Your task to perform on an android device: clear all cookies in the chrome app Image 0: 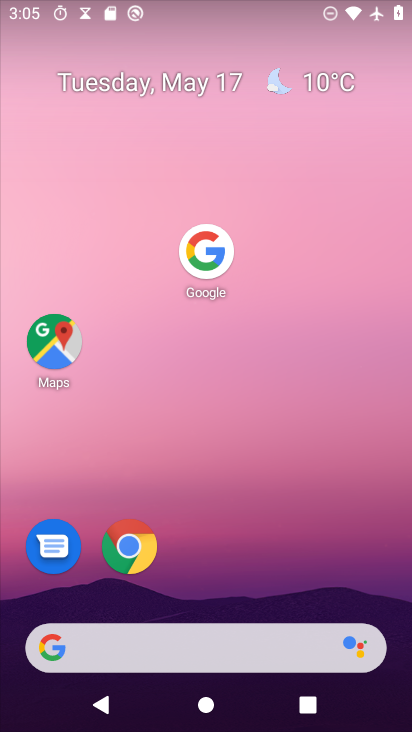
Step 0: click (128, 559)
Your task to perform on an android device: clear all cookies in the chrome app Image 1: 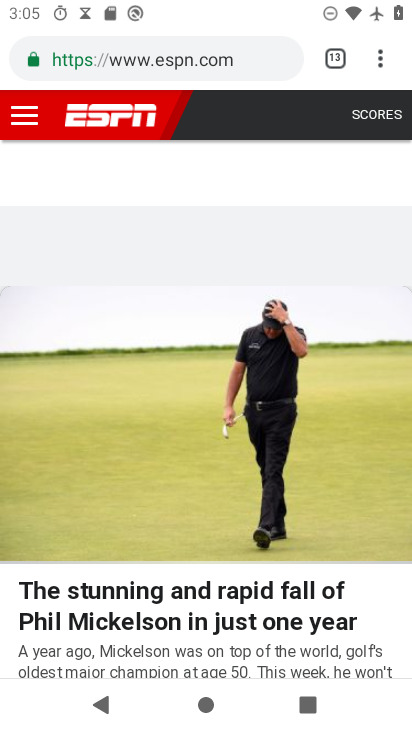
Step 1: drag from (384, 69) to (281, 578)
Your task to perform on an android device: clear all cookies in the chrome app Image 2: 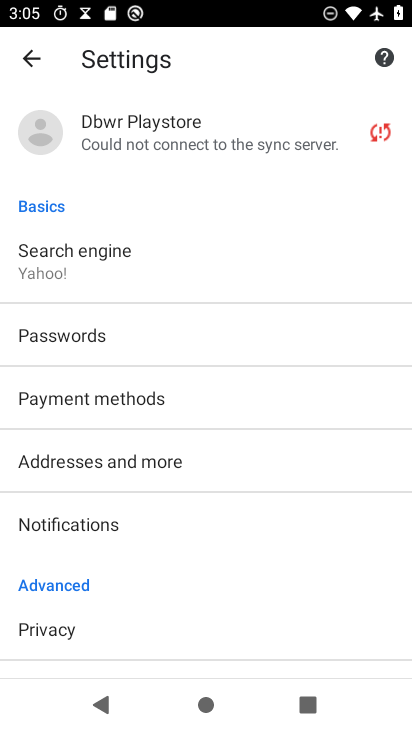
Step 2: drag from (191, 638) to (373, 198)
Your task to perform on an android device: clear all cookies in the chrome app Image 3: 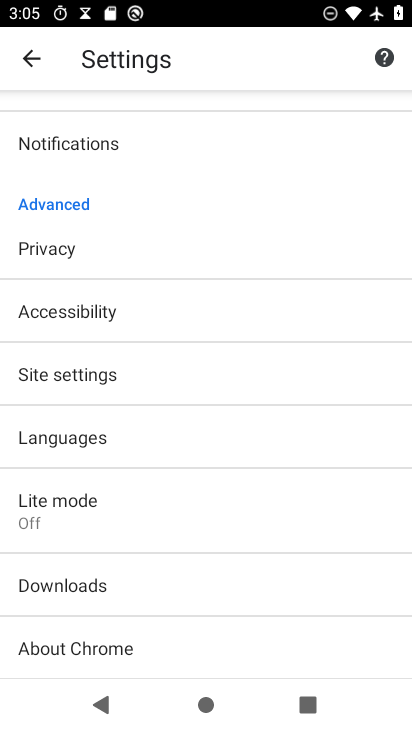
Step 3: click (66, 247)
Your task to perform on an android device: clear all cookies in the chrome app Image 4: 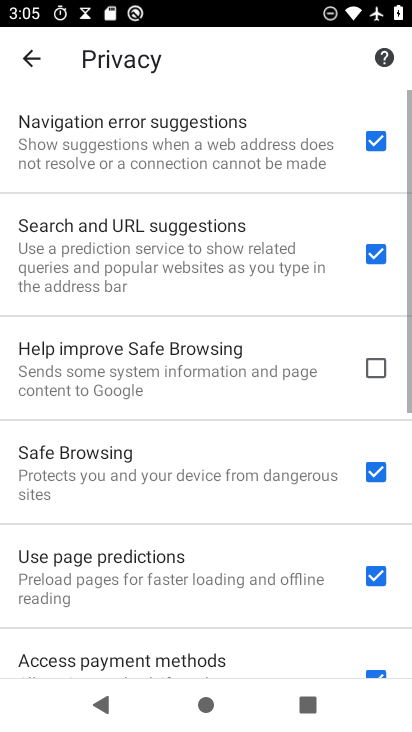
Step 4: drag from (178, 566) to (325, 107)
Your task to perform on an android device: clear all cookies in the chrome app Image 5: 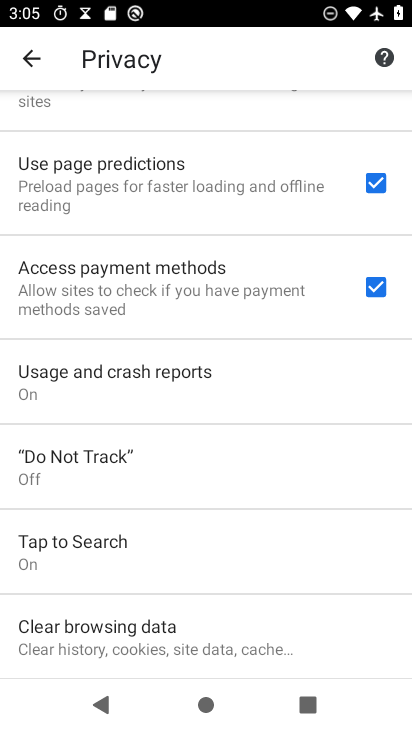
Step 5: click (157, 632)
Your task to perform on an android device: clear all cookies in the chrome app Image 6: 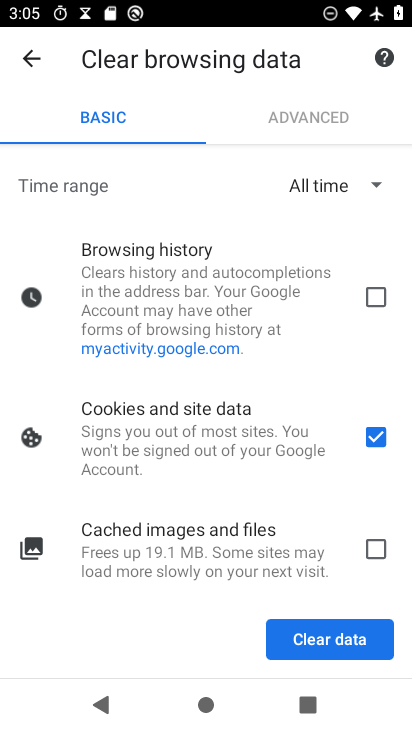
Step 6: click (323, 650)
Your task to perform on an android device: clear all cookies in the chrome app Image 7: 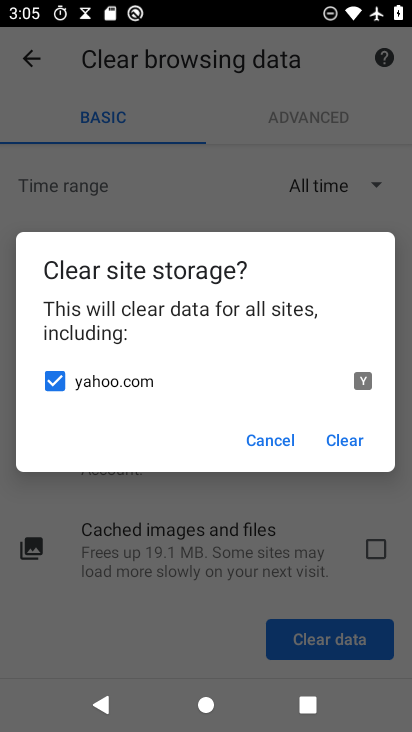
Step 7: click (335, 440)
Your task to perform on an android device: clear all cookies in the chrome app Image 8: 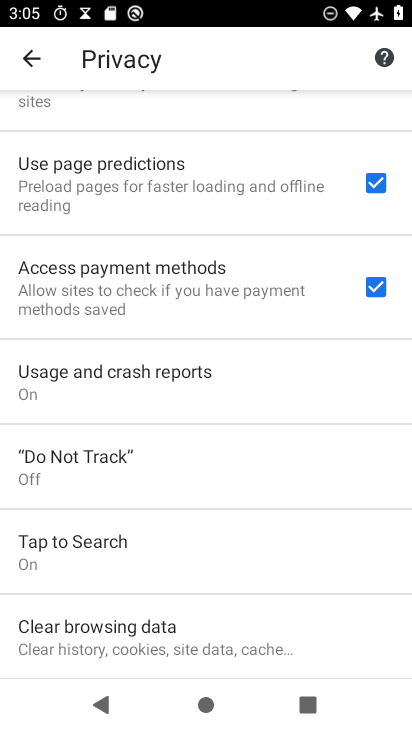
Step 8: task complete